Your task to perform on an android device: Go to wifi settings Image 0: 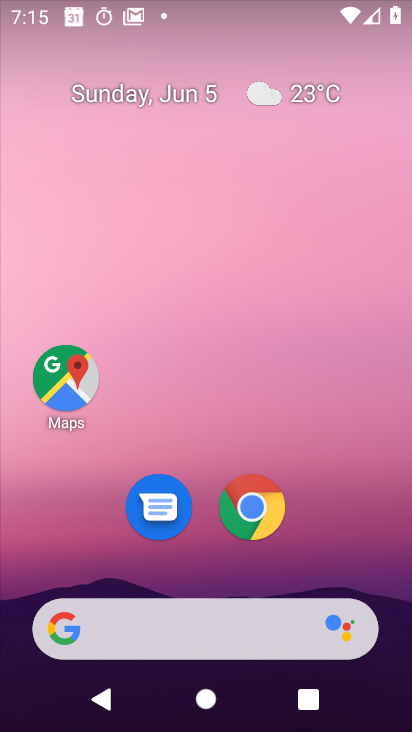
Step 0: drag from (295, 637) to (195, 137)
Your task to perform on an android device: Go to wifi settings Image 1: 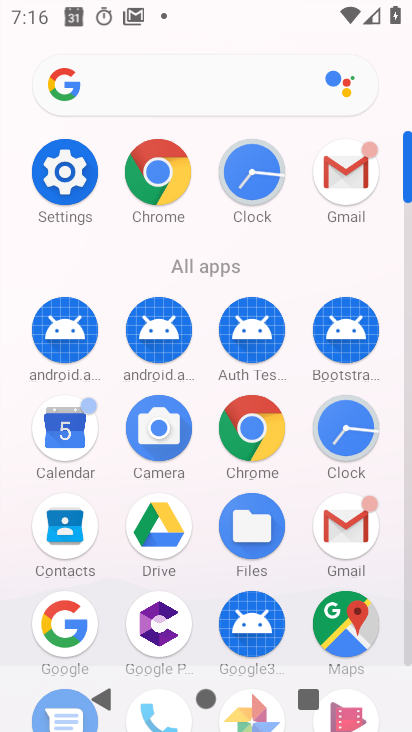
Step 1: click (71, 155)
Your task to perform on an android device: Go to wifi settings Image 2: 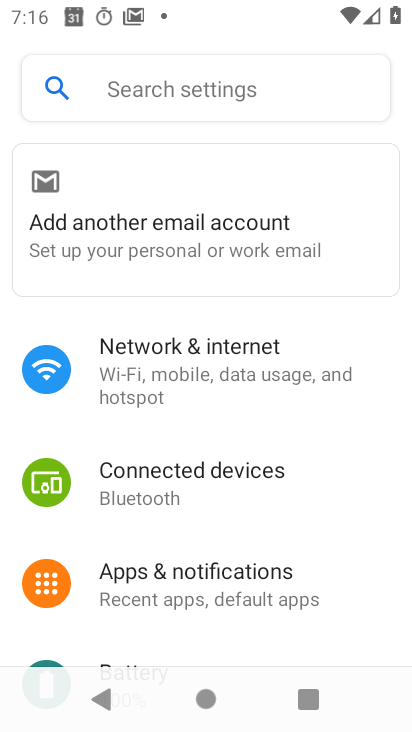
Step 2: click (175, 348)
Your task to perform on an android device: Go to wifi settings Image 3: 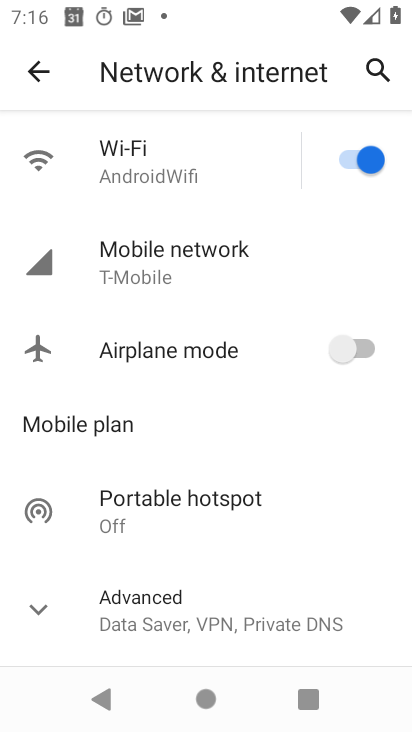
Step 3: task complete